Your task to perform on an android device: toggle location history Image 0: 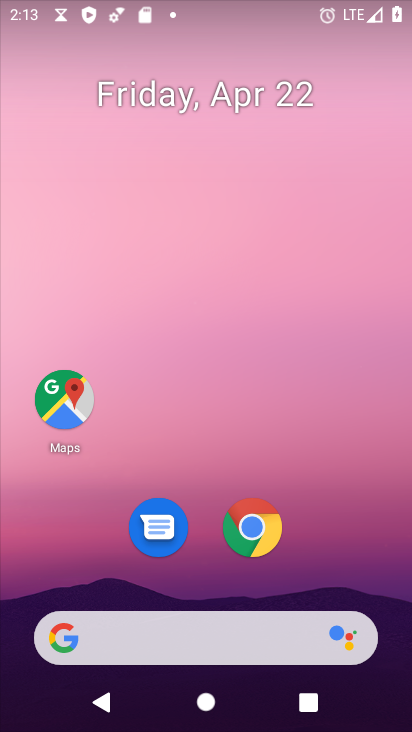
Step 0: press home button
Your task to perform on an android device: toggle location history Image 1: 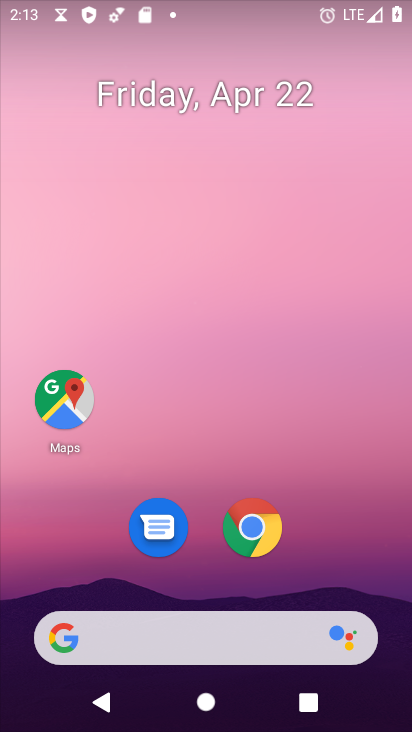
Step 1: drag from (351, 533) to (313, 30)
Your task to perform on an android device: toggle location history Image 2: 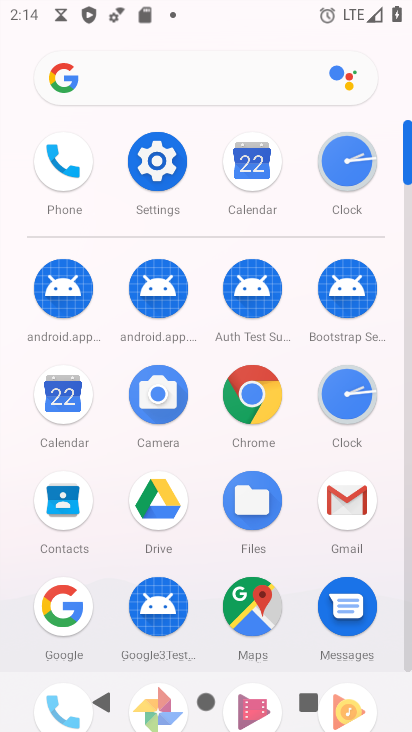
Step 2: click (157, 170)
Your task to perform on an android device: toggle location history Image 3: 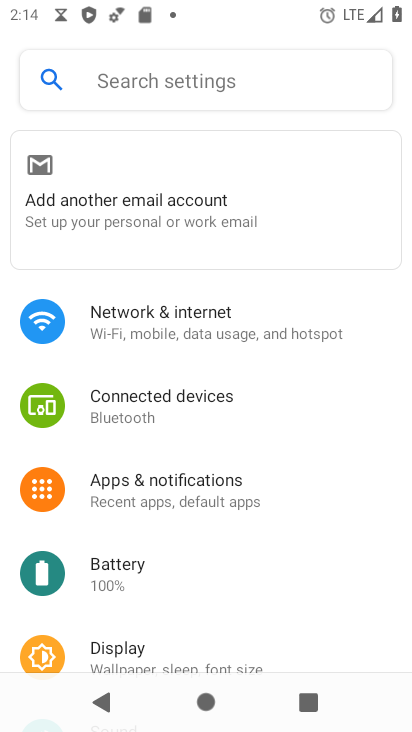
Step 3: drag from (229, 548) to (184, 186)
Your task to perform on an android device: toggle location history Image 4: 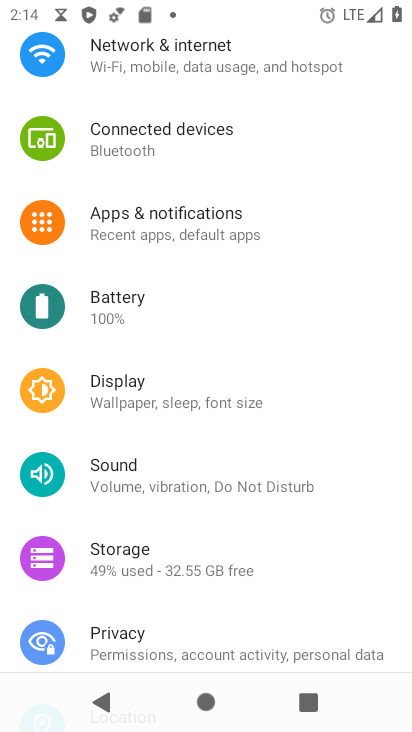
Step 4: drag from (334, 596) to (295, 182)
Your task to perform on an android device: toggle location history Image 5: 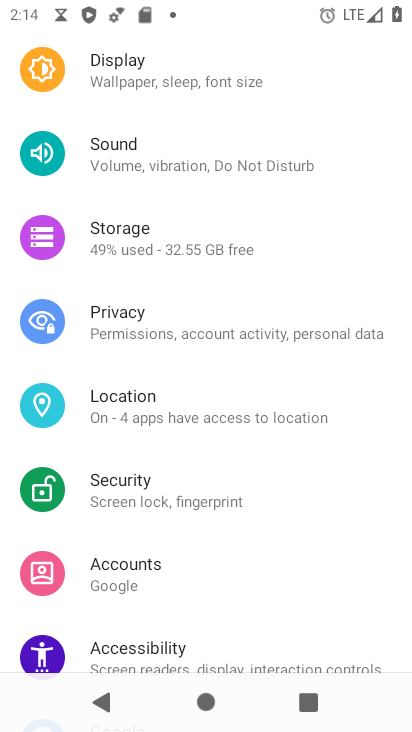
Step 5: click (146, 403)
Your task to perform on an android device: toggle location history Image 6: 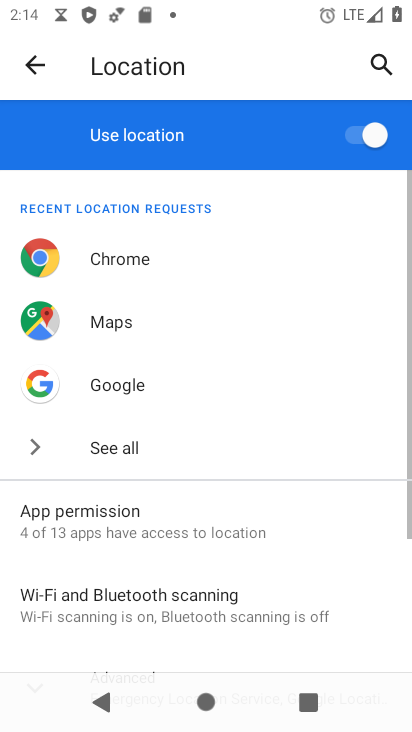
Step 6: drag from (177, 552) to (192, 165)
Your task to perform on an android device: toggle location history Image 7: 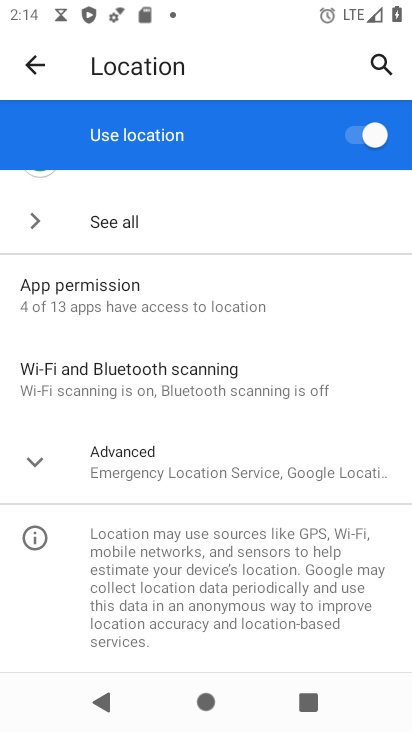
Step 7: click (177, 473)
Your task to perform on an android device: toggle location history Image 8: 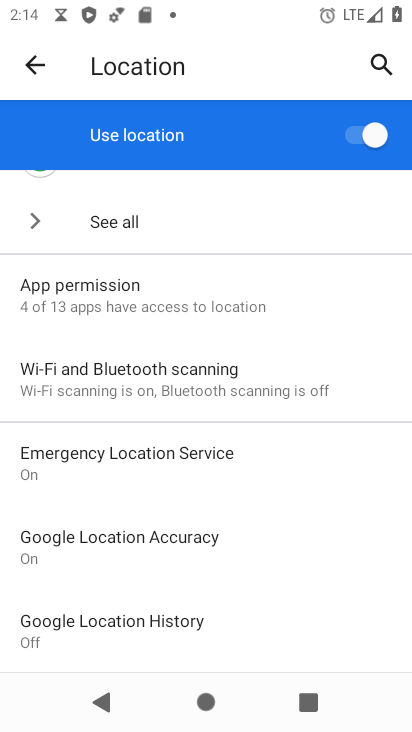
Step 8: click (116, 628)
Your task to perform on an android device: toggle location history Image 9: 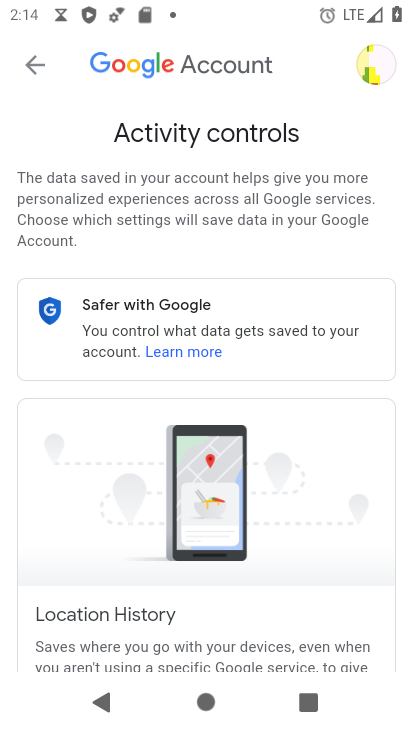
Step 9: drag from (208, 540) to (151, 79)
Your task to perform on an android device: toggle location history Image 10: 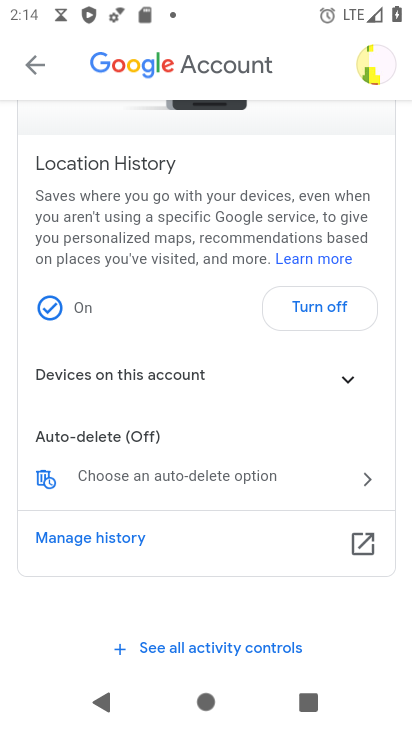
Step 10: click (62, 305)
Your task to perform on an android device: toggle location history Image 11: 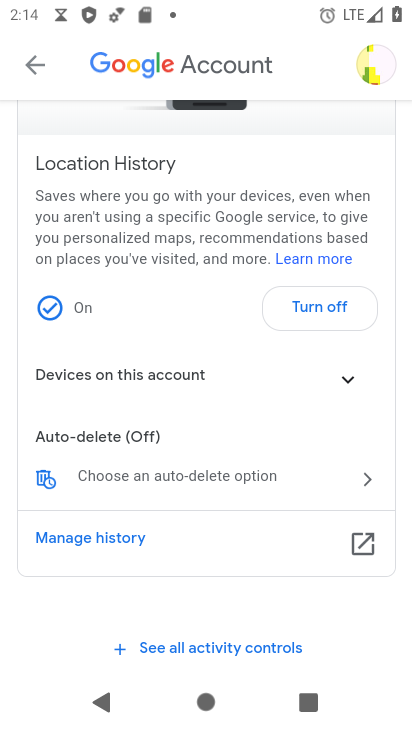
Step 11: click (48, 305)
Your task to perform on an android device: toggle location history Image 12: 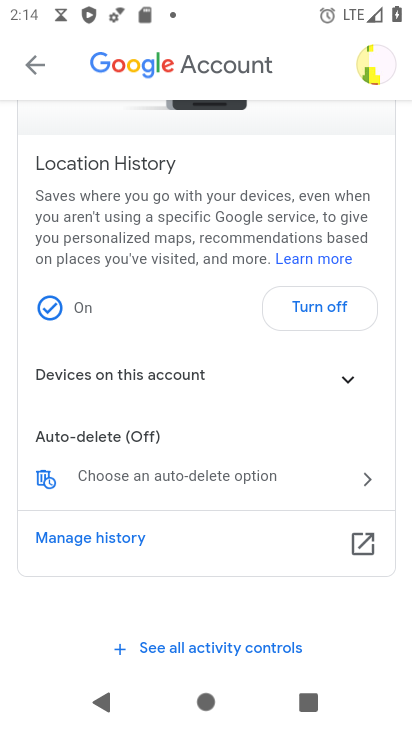
Step 12: click (47, 305)
Your task to perform on an android device: toggle location history Image 13: 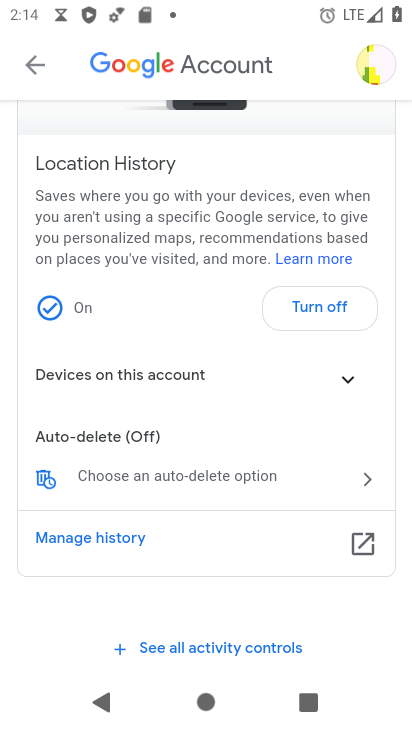
Step 13: click (48, 304)
Your task to perform on an android device: toggle location history Image 14: 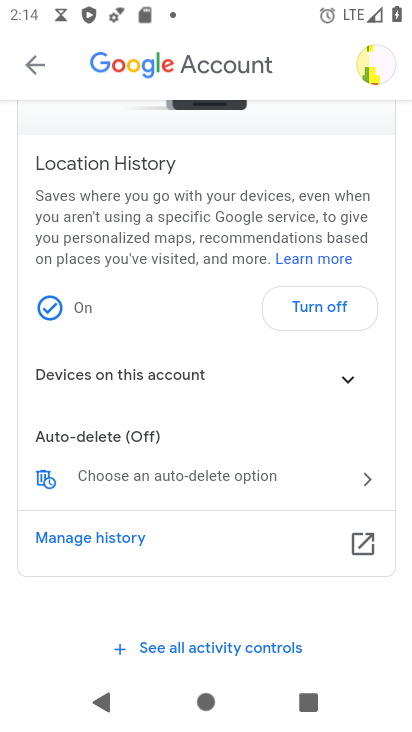
Step 14: click (59, 309)
Your task to perform on an android device: toggle location history Image 15: 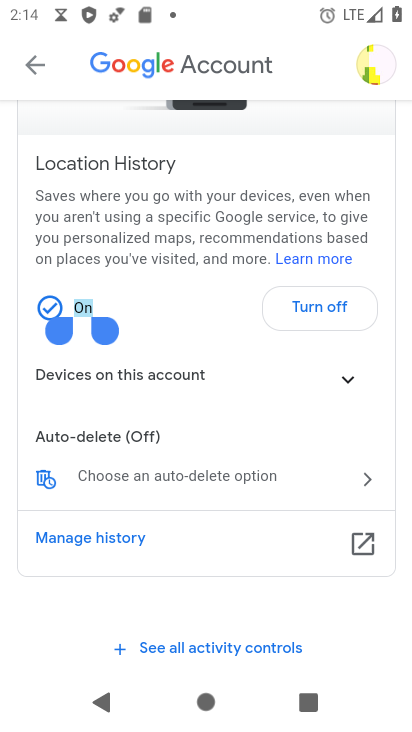
Step 15: click (89, 304)
Your task to perform on an android device: toggle location history Image 16: 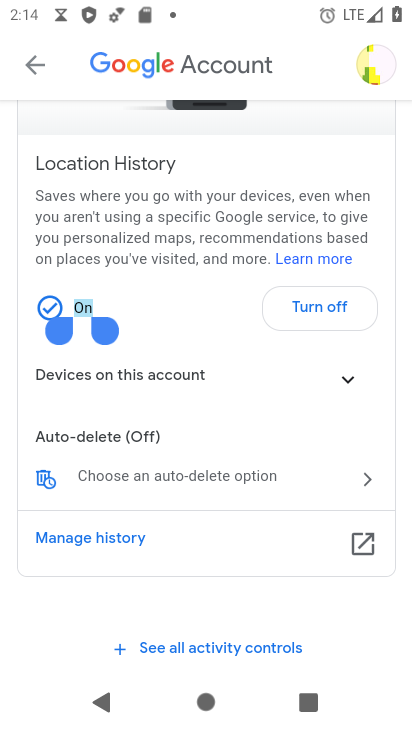
Step 16: click (89, 304)
Your task to perform on an android device: toggle location history Image 17: 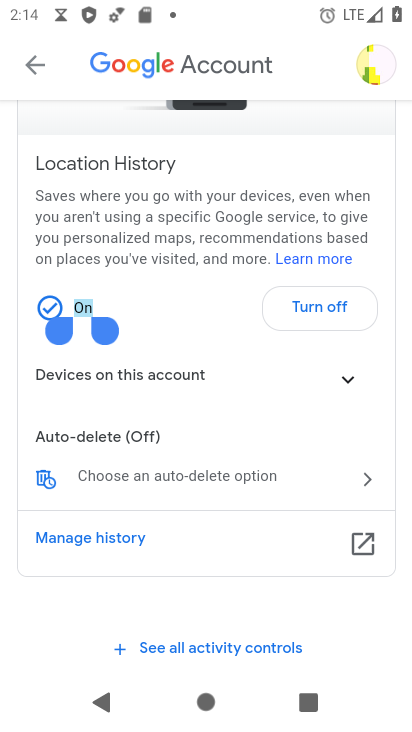
Step 17: click (331, 318)
Your task to perform on an android device: toggle location history Image 18: 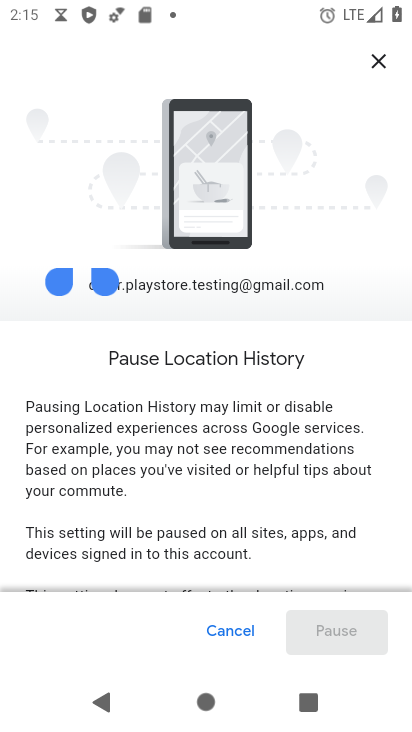
Step 18: drag from (294, 533) to (237, 133)
Your task to perform on an android device: toggle location history Image 19: 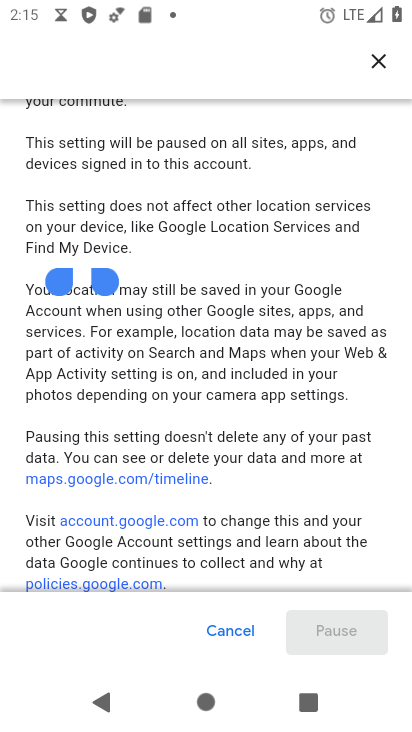
Step 19: drag from (201, 478) to (193, 231)
Your task to perform on an android device: toggle location history Image 20: 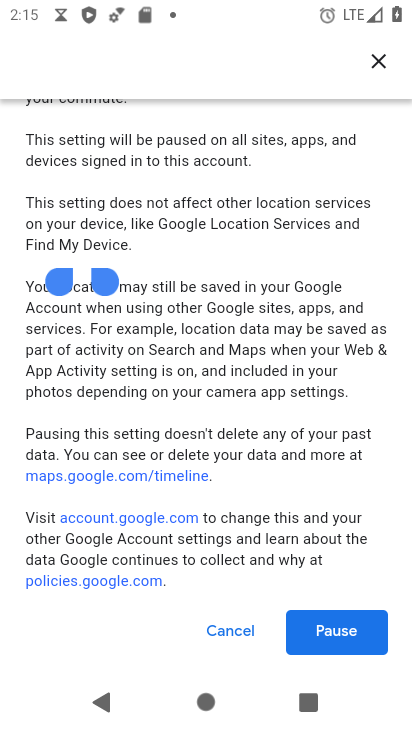
Step 20: click (356, 636)
Your task to perform on an android device: toggle location history Image 21: 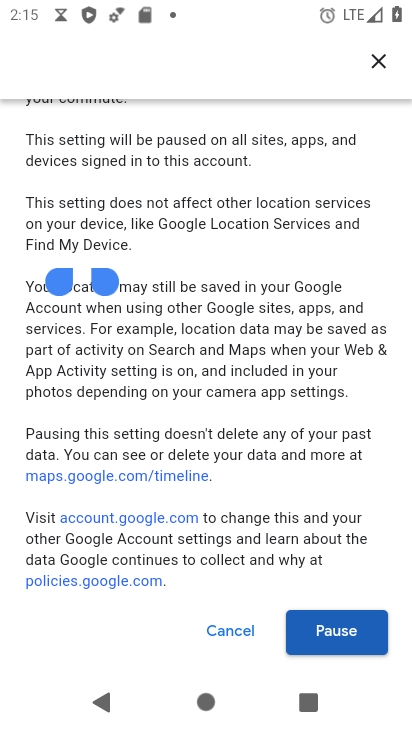
Step 21: click (339, 631)
Your task to perform on an android device: toggle location history Image 22: 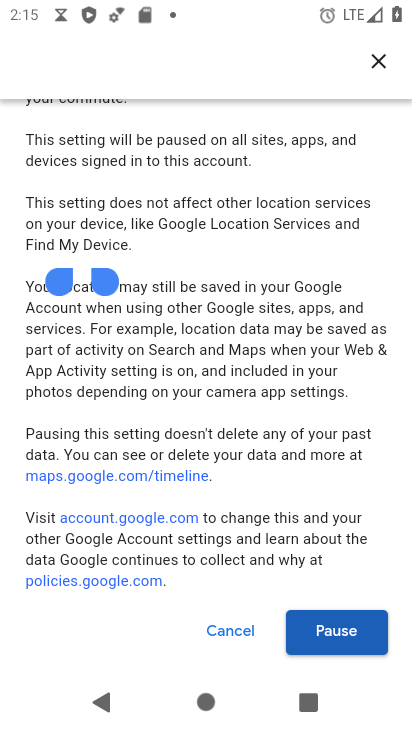
Step 22: drag from (231, 533) to (190, 118)
Your task to perform on an android device: toggle location history Image 23: 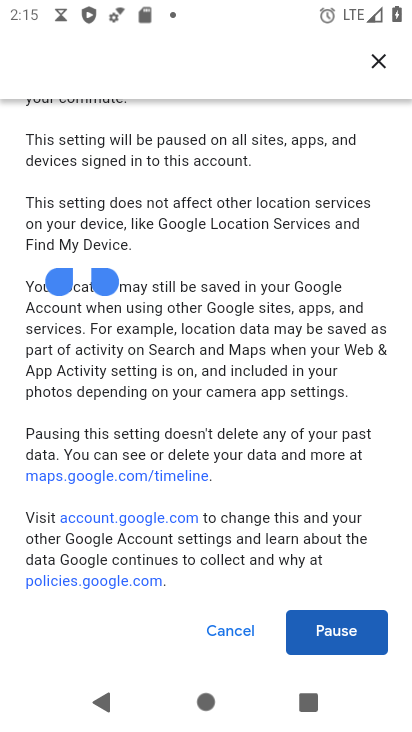
Step 23: click (329, 634)
Your task to perform on an android device: toggle location history Image 24: 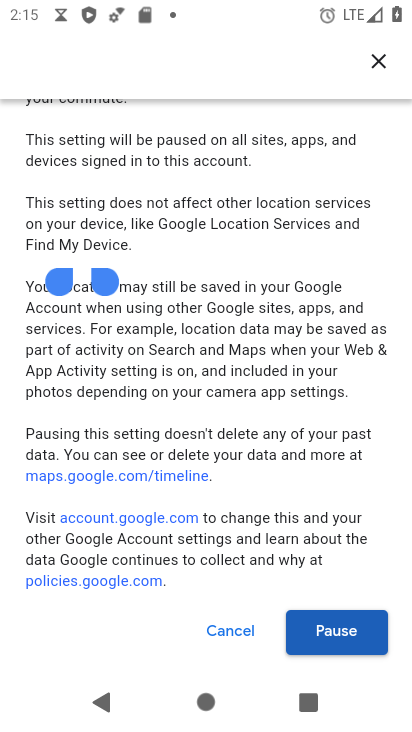
Step 24: click (336, 638)
Your task to perform on an android device: toggle location history Image 25: 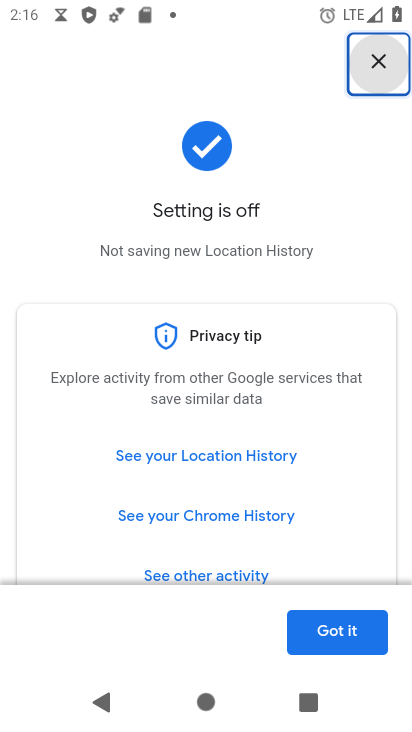
Step 25: task complete